Your task to perform on an android device: Search for a new grill on Home Depot Image 0: 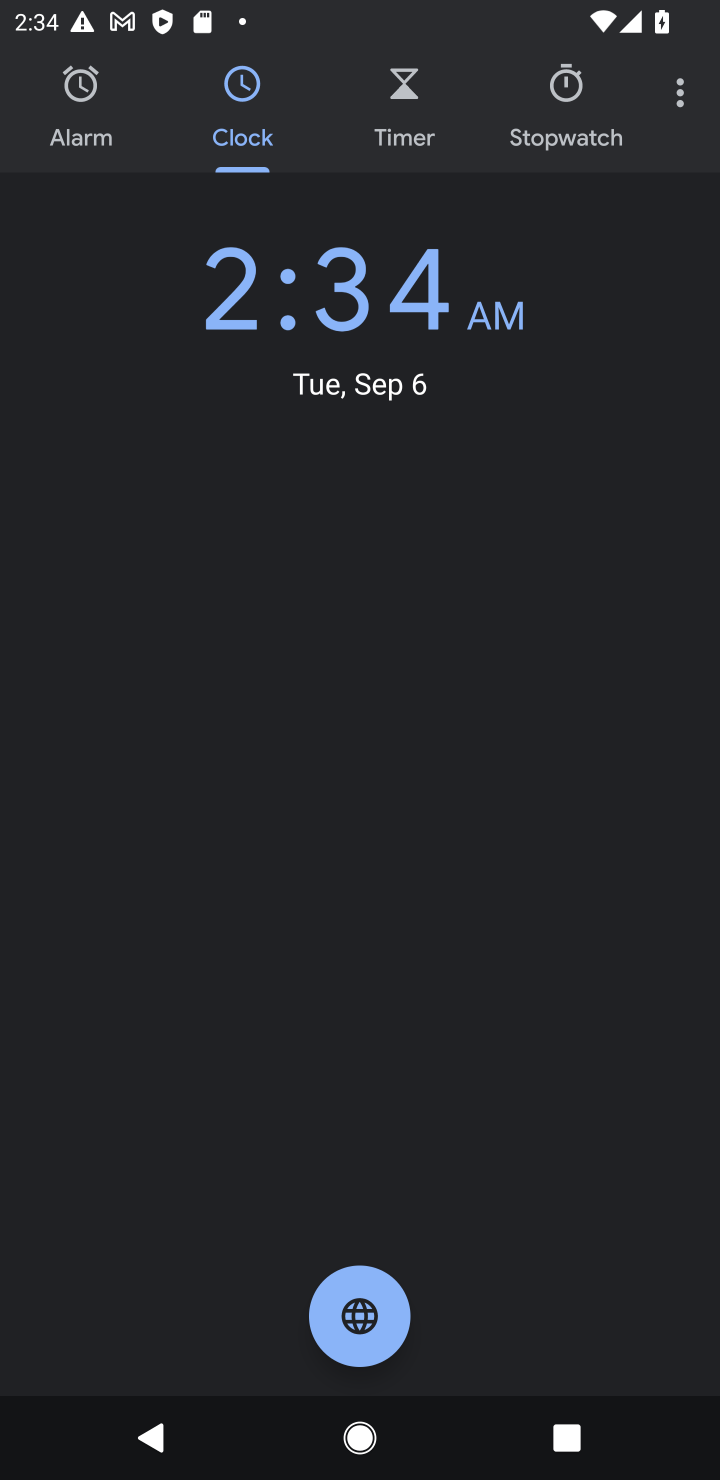
Step 0: press home button
Your task to perform on an android device: Search for a new grill on Home Depot Image 1: 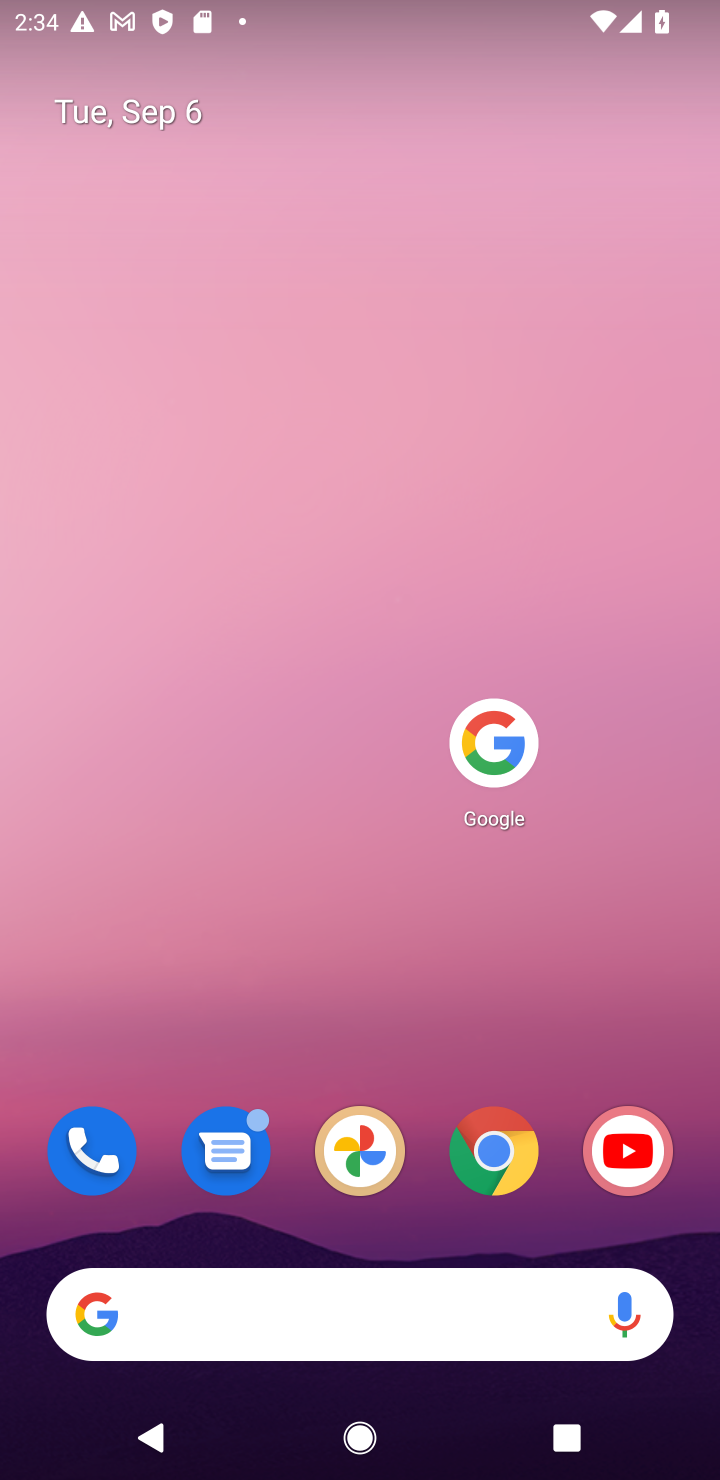
Step 1: click (501, 720)
Your task to perform on an android device: Search for a new grill on Home Depot Image 2: 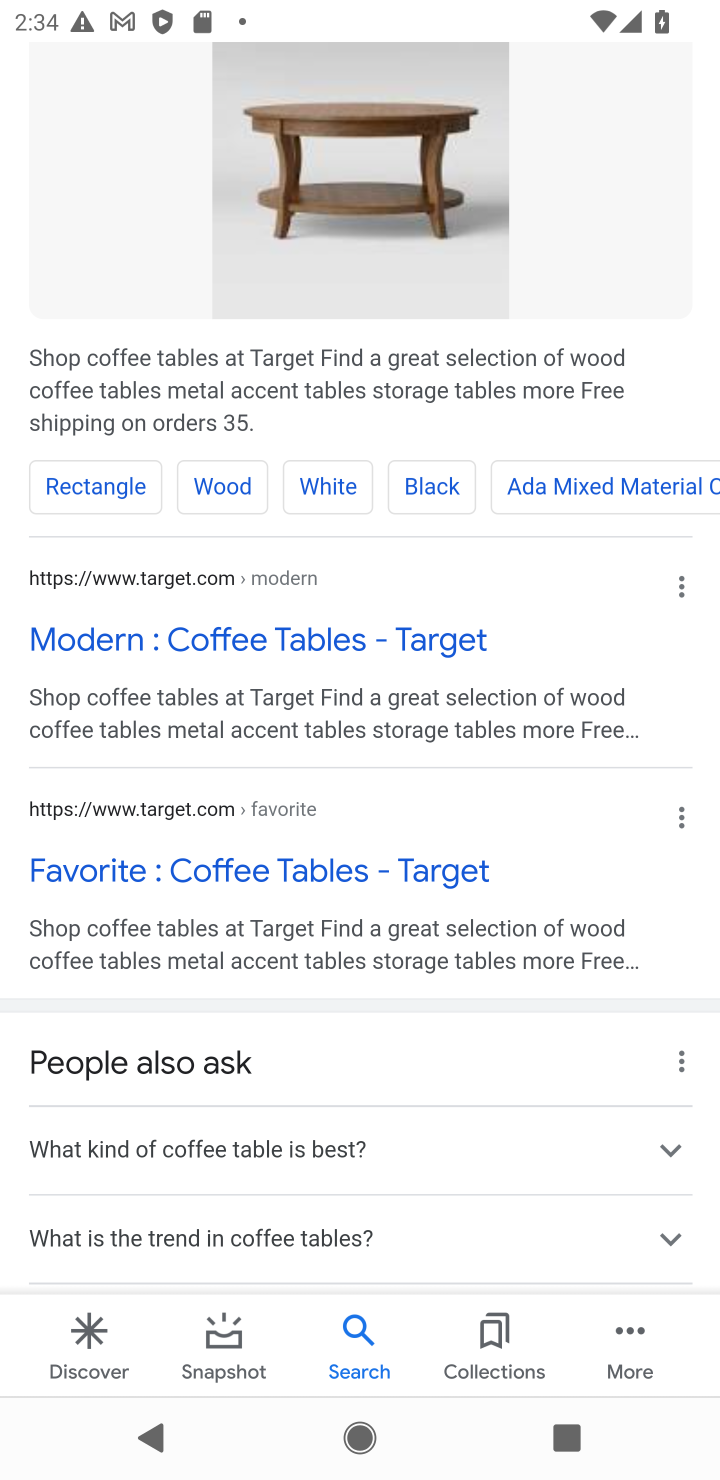
Step 2: drag from (313, 969) to (321, 1133)
Your task to perform on an android device: Search for a new grill on Home Depot Image 3: 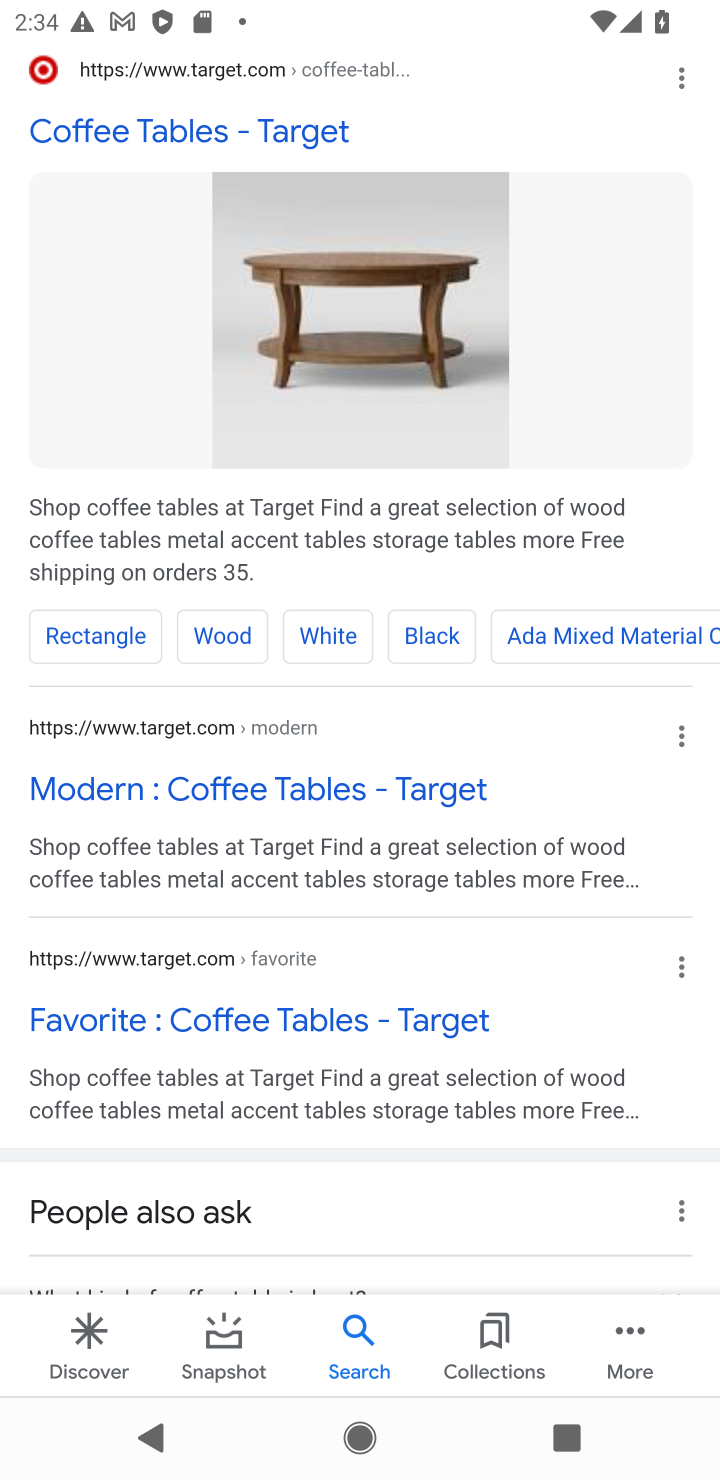
Step 3: drag from (420, 338) to (401, 1150)
Your task to perform on an android device: Search for a new grill on Home Depot Image 4: 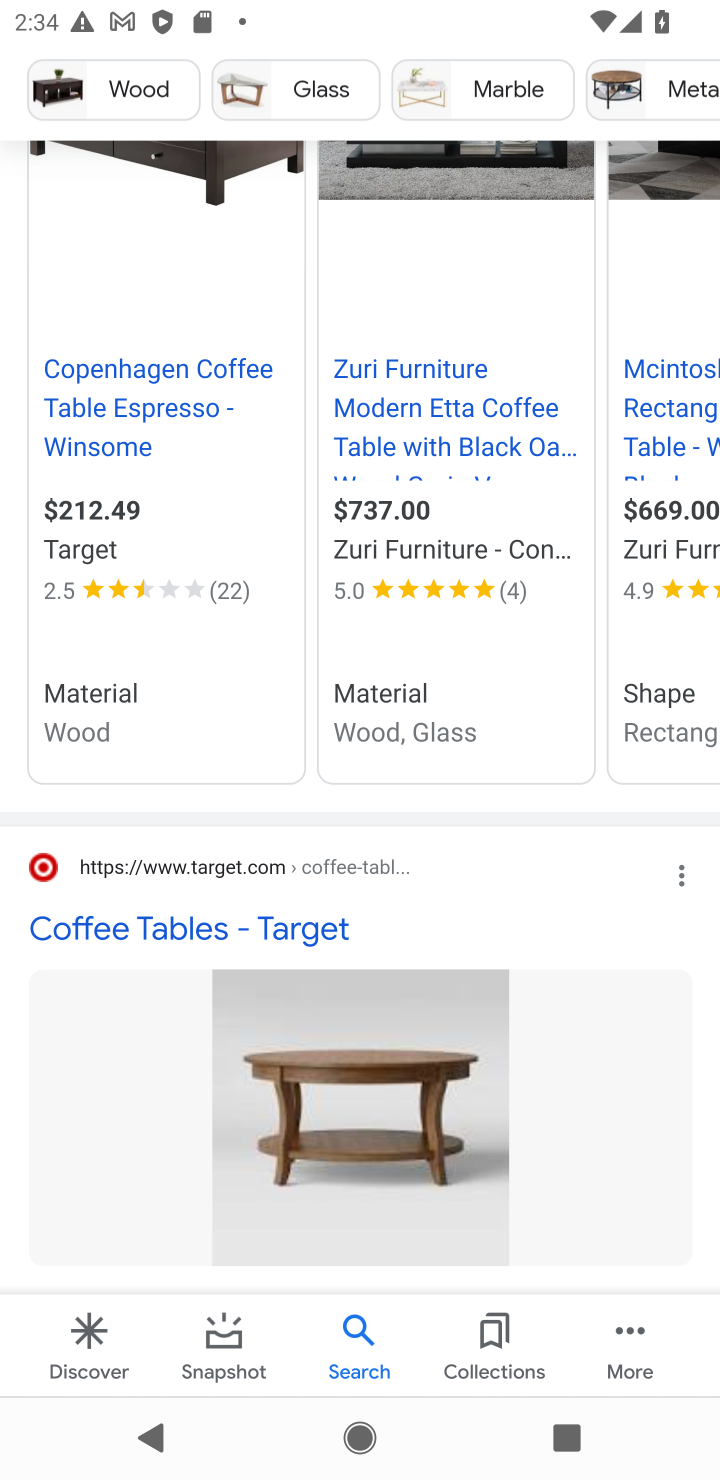
Step 4: drag from (303, 190) to (323, 1053)
Your task to perform on an android device: Search for a new grill on Home Depot Image 5: 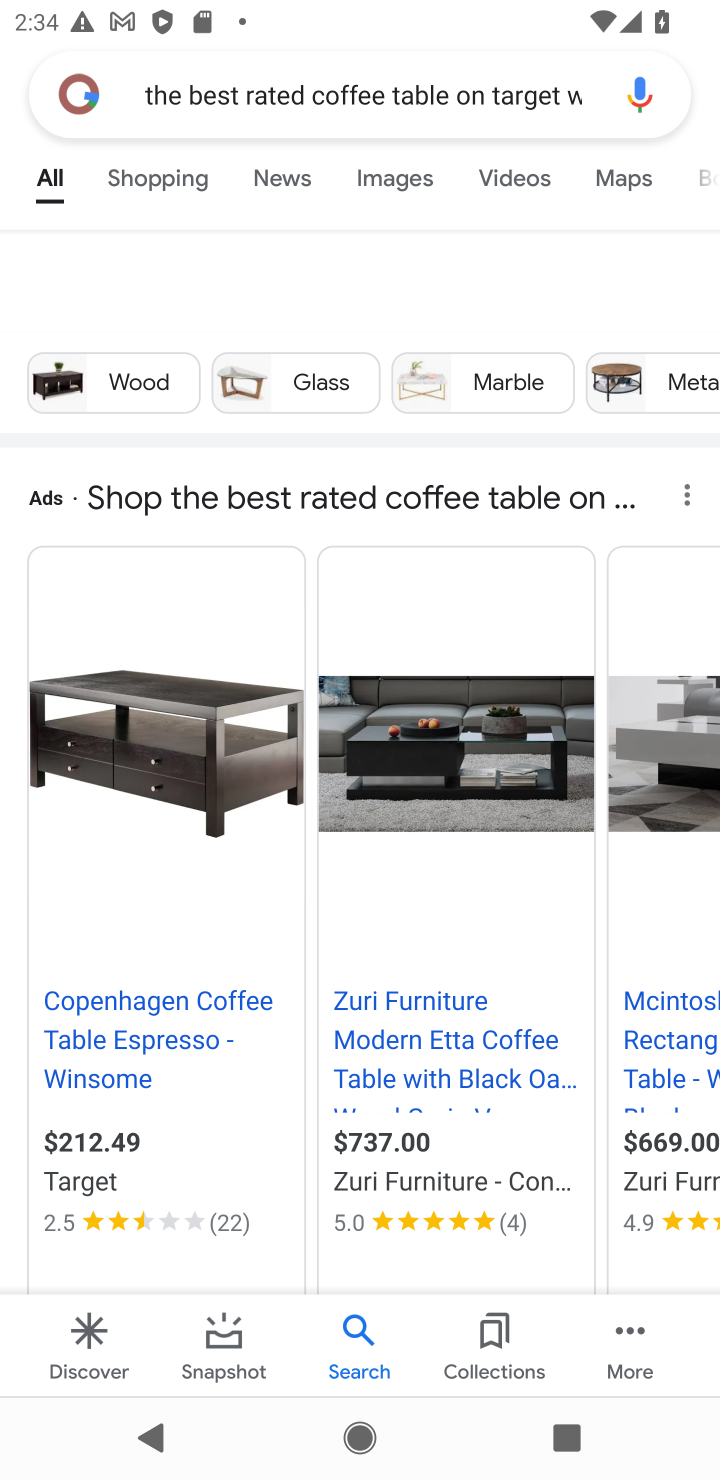
Step 5: drag from (261, 384) to (338, 1202)
Your task to perform on an android device: Search for a new grill on Home Depot Image 6: 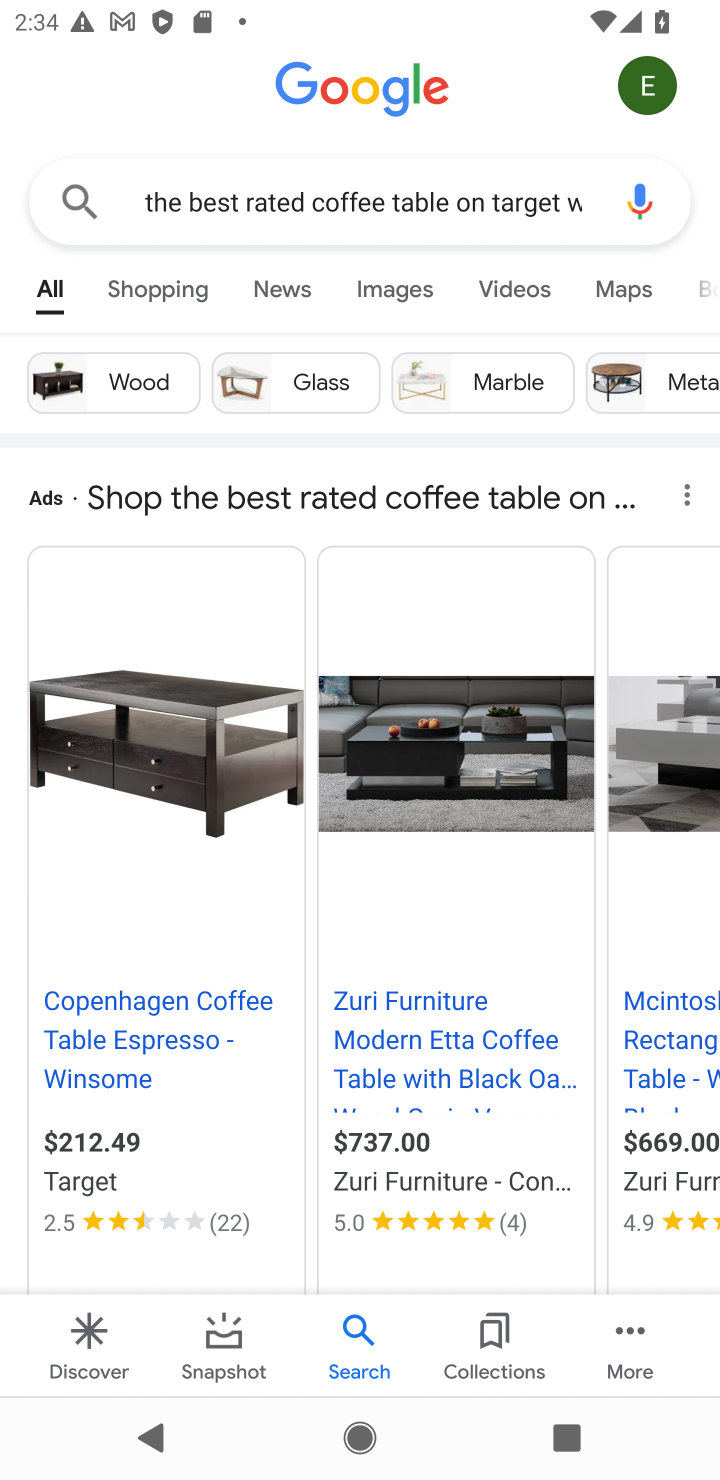
Step 6: click (455, 183)
Your task to perform on an android device: Search for a new grill on Home Depot Image 7: 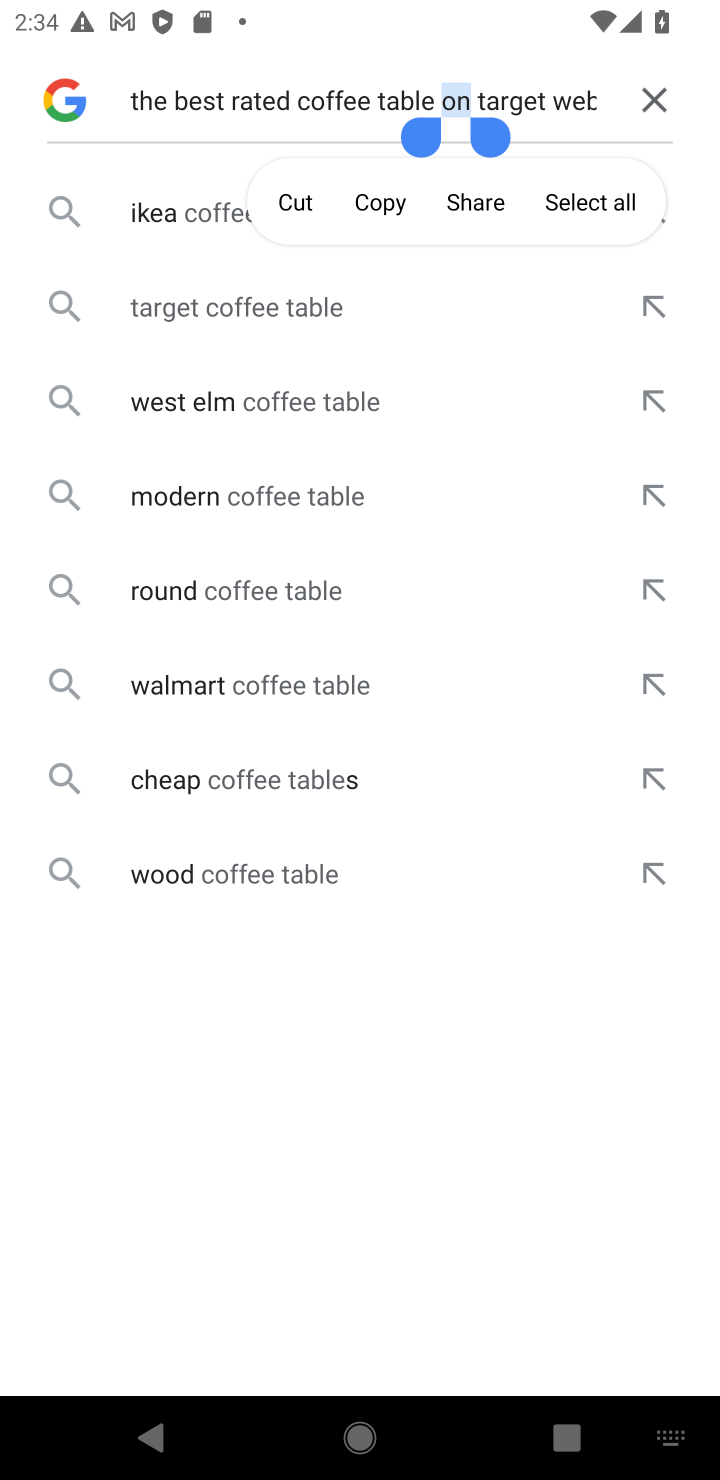
Step 7: click (624, 88)
Your task to perform on an android device: Search for a new grill on Home Depot Image 8: 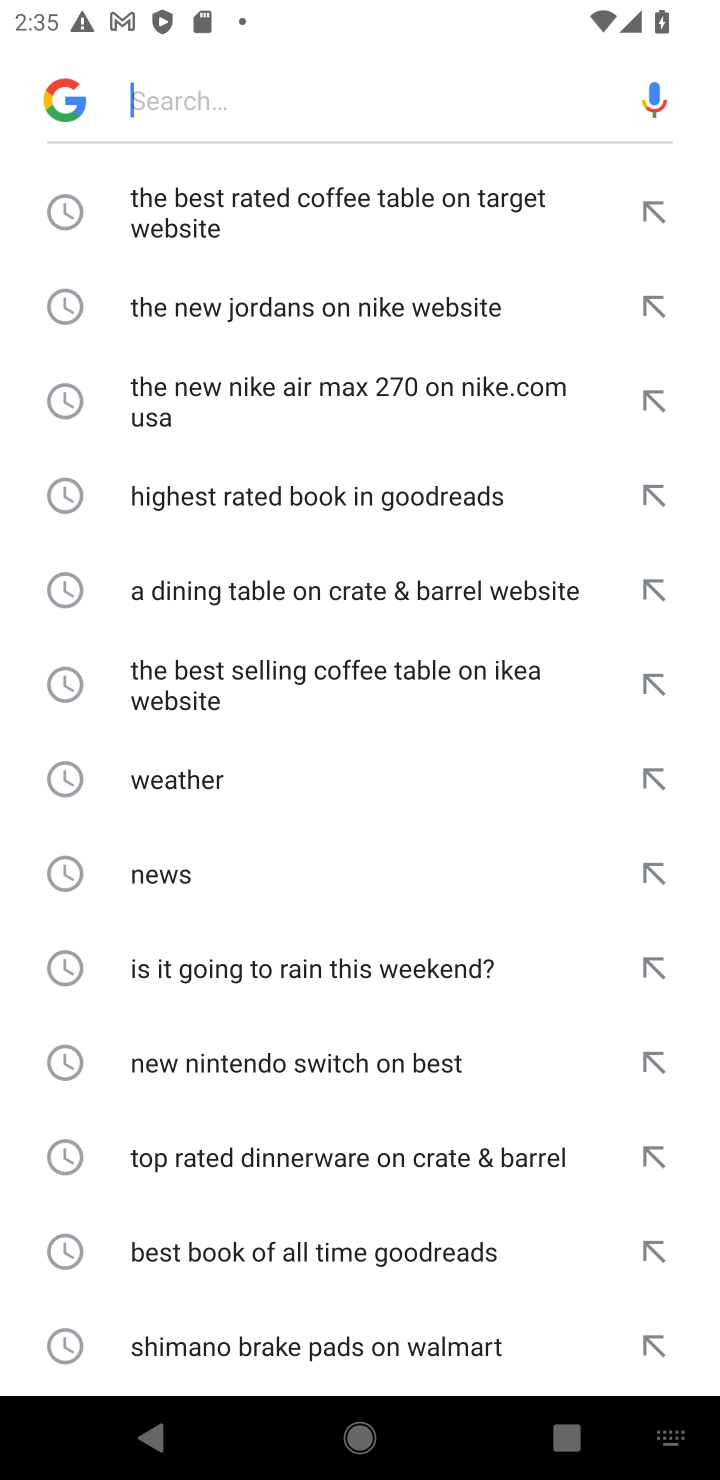
Step 8: click (265, 98)
Your task to perform on an android device: Search for a new grill on Home Depot Image 9: 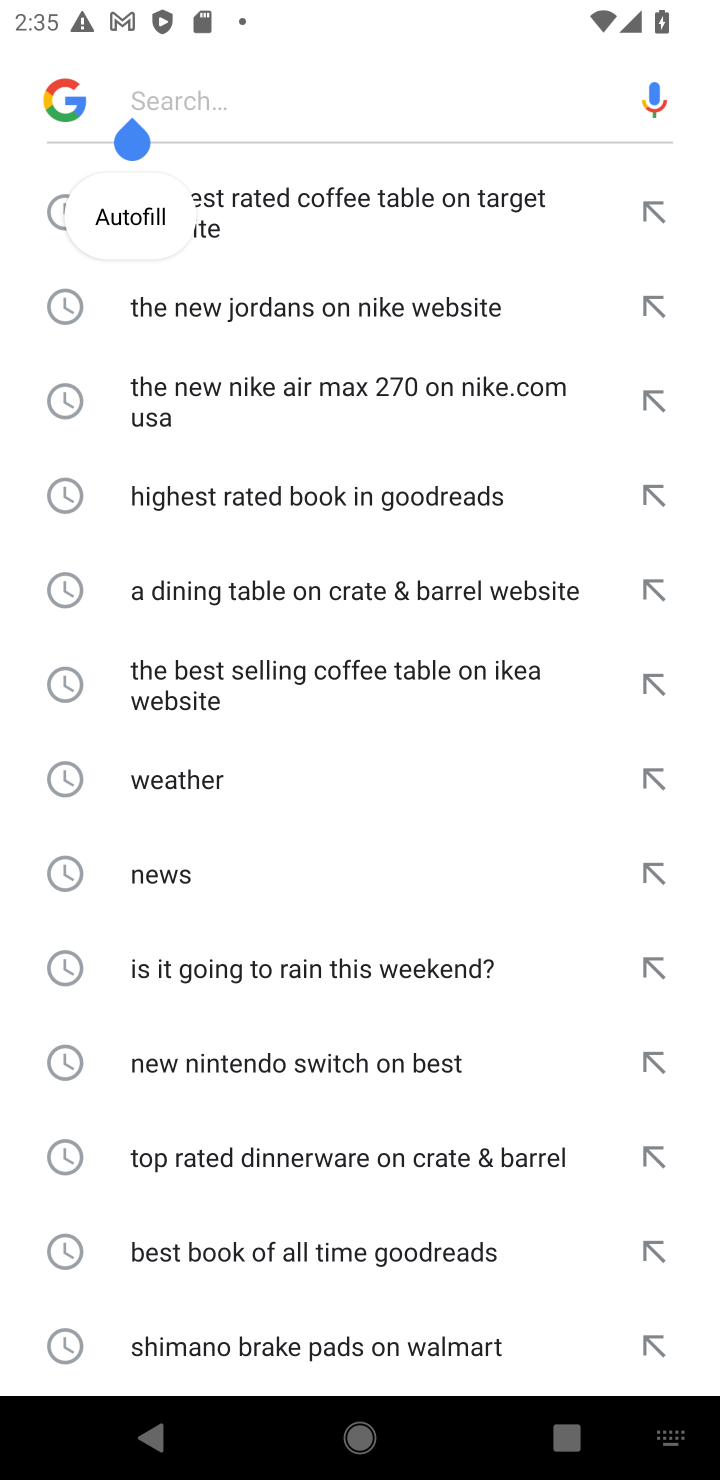
Step 9: type " a new grill on Home Depot "
Your task to perform on an android device: Search for a new grill on Home Depot Image 10: 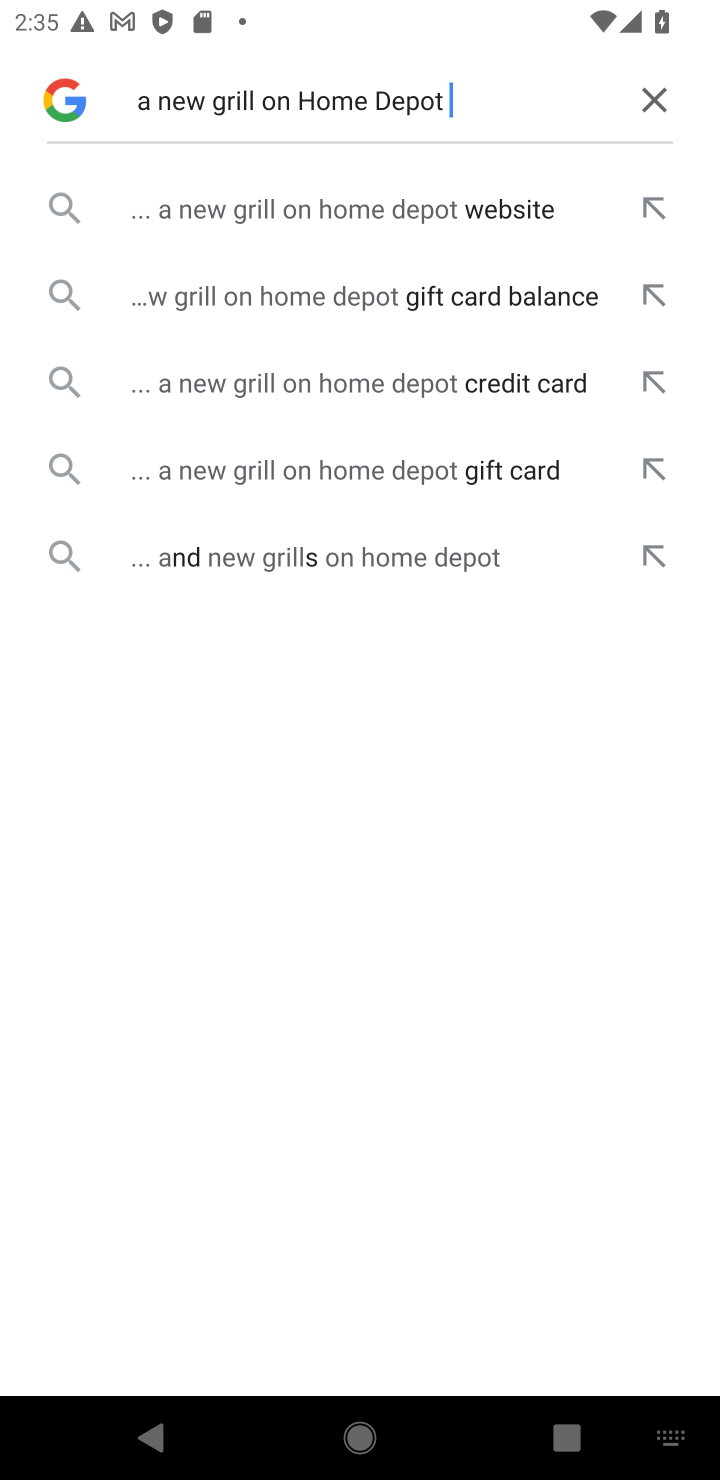
Step 10: click (420, 174)
Your task to perform on an android device: Search for a new grill on Home Depot Image 11: 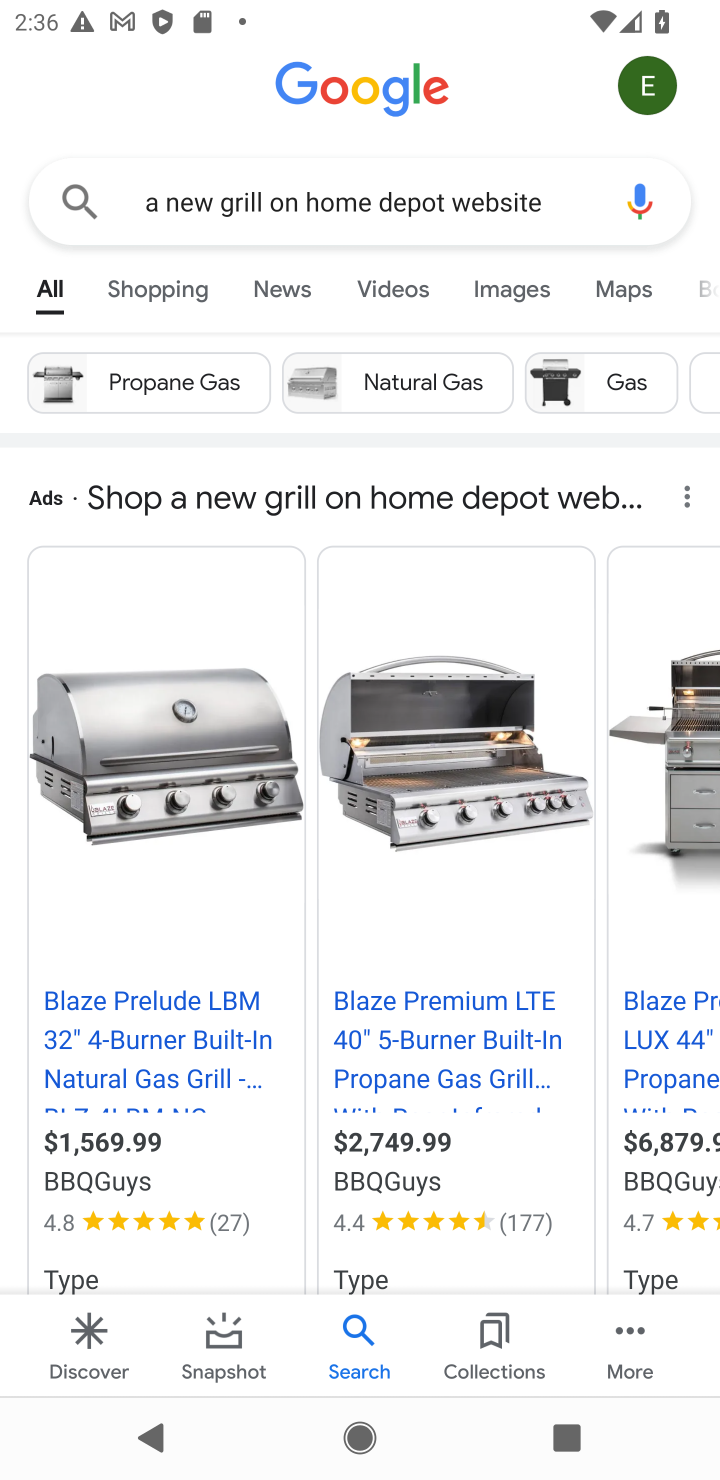
Step 11: task complete